Your task to perform on an android device: toggle improve location accuracy Image 0: 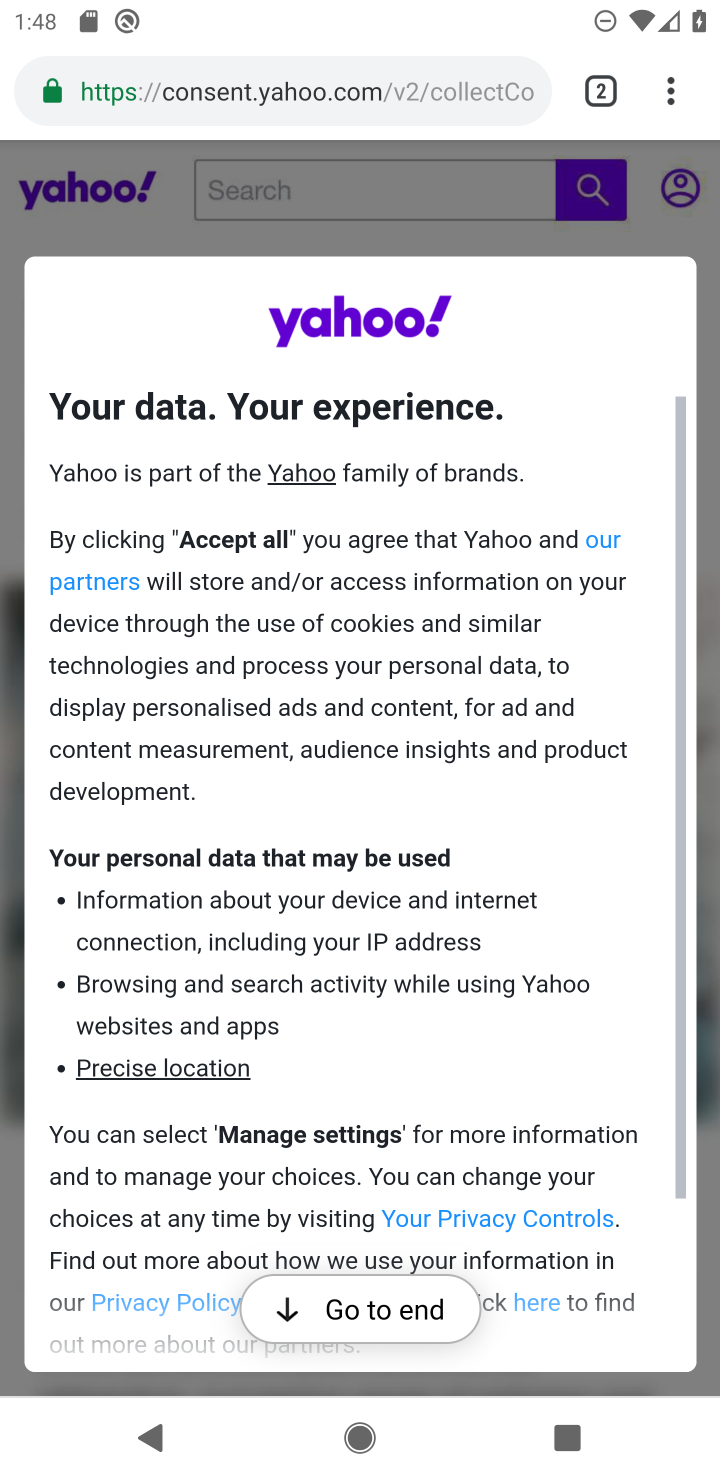
Step 0: press home button
Your task to perform on an android device: toggle improve location accuracy Image 1: 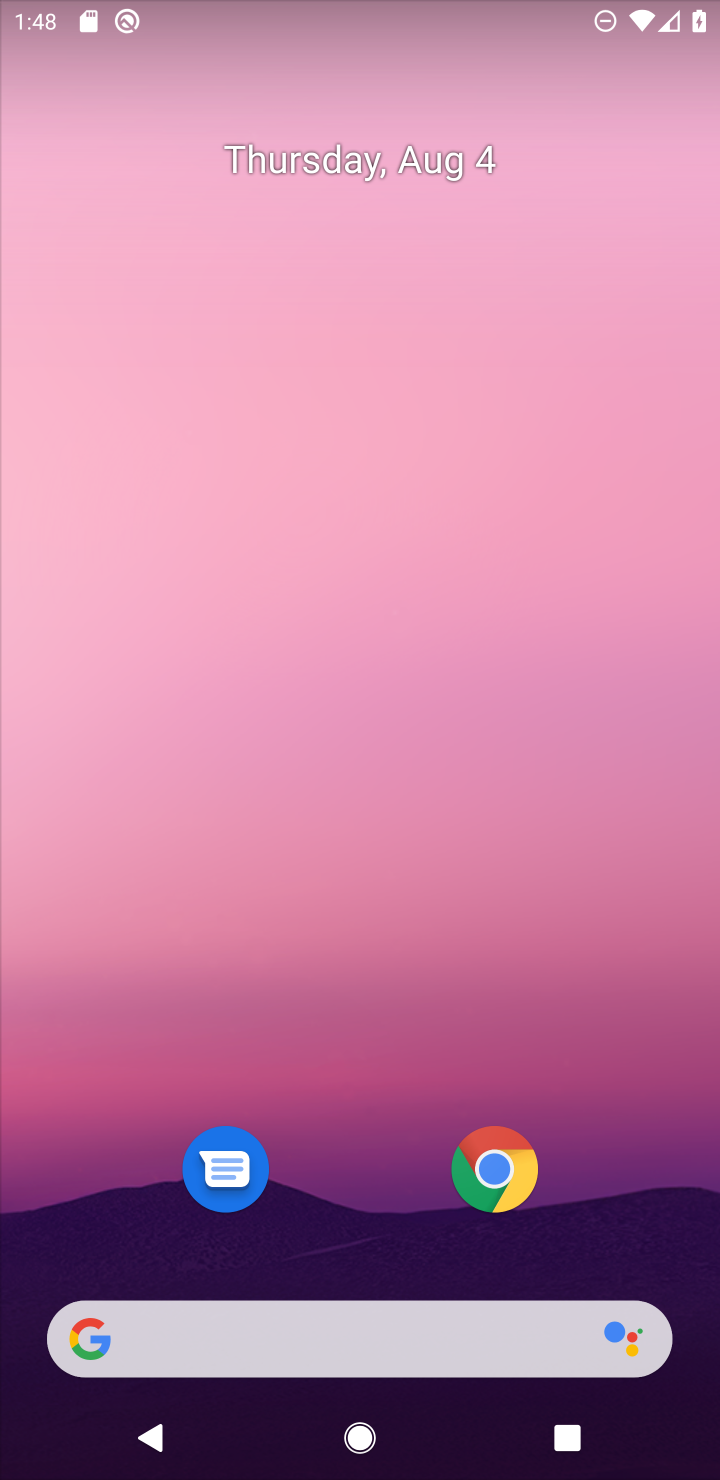
Step 1: drag from (382, 1235) to (484, 30)
Your task to perform on an android device: toggle improve location accuracy Image 2: 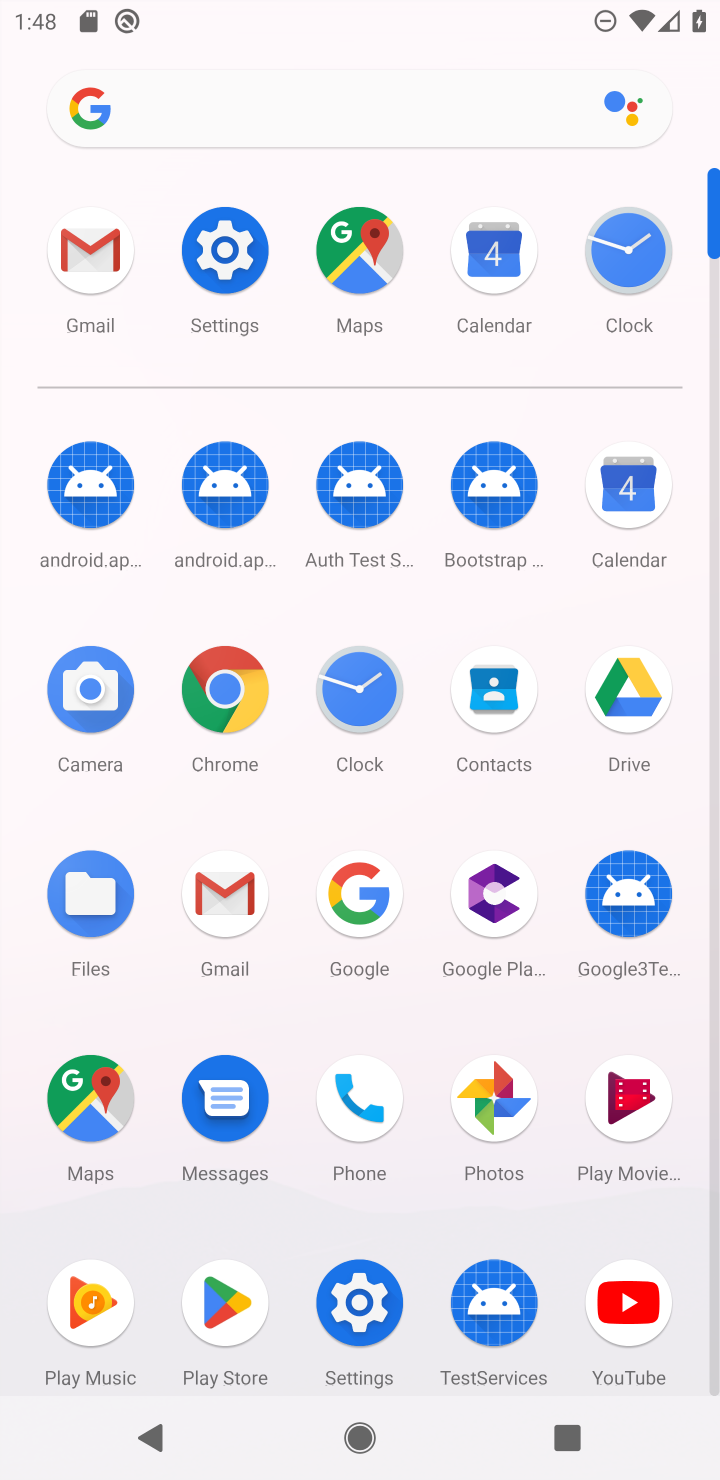
Step 2: click (218, 248)
Your task to perform on an android device: toggle improve location accuracy Image 3: 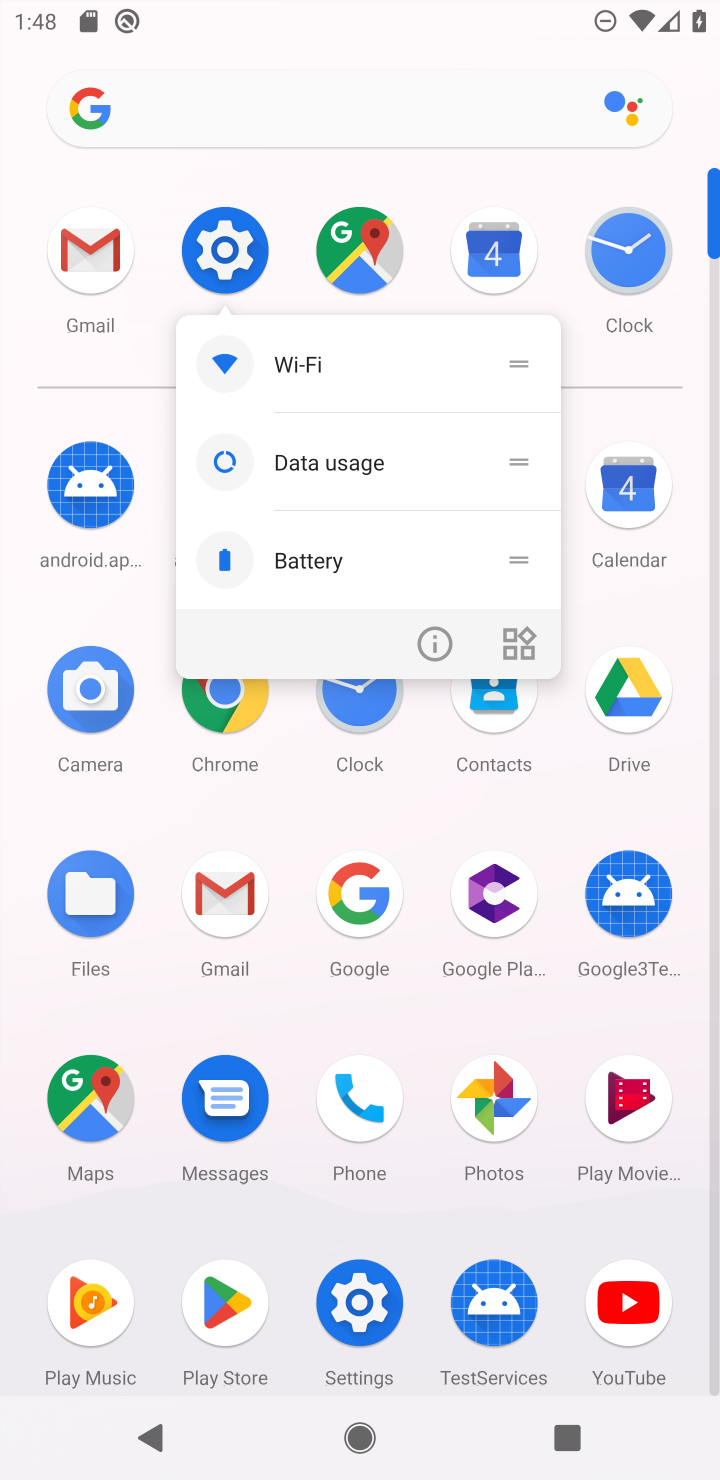
Step 3: click (224, 255)
Your task to perform on an android device: toggle improve location accuracy Image 4: 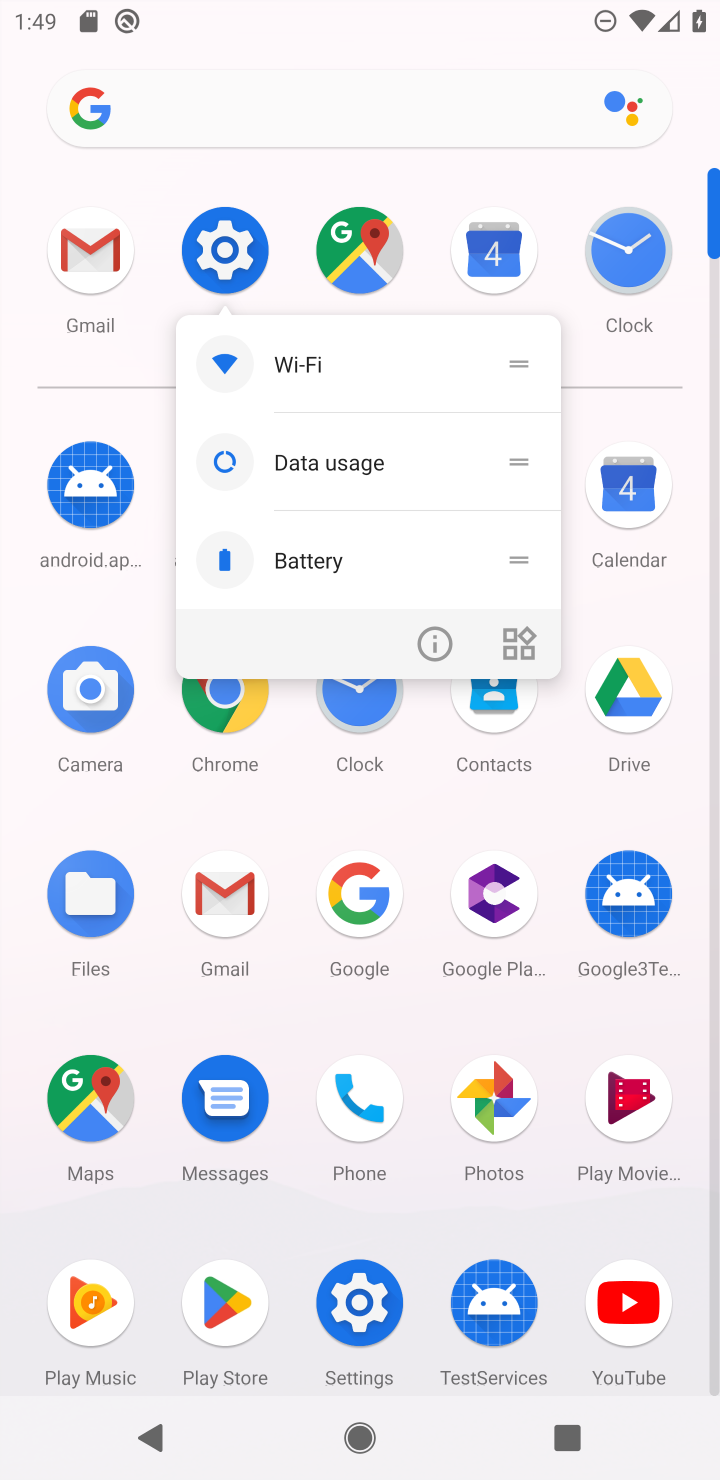
Step 4: click (224, 255)
Your task to perform on an android device: toggle improve location accuracy Image 5: 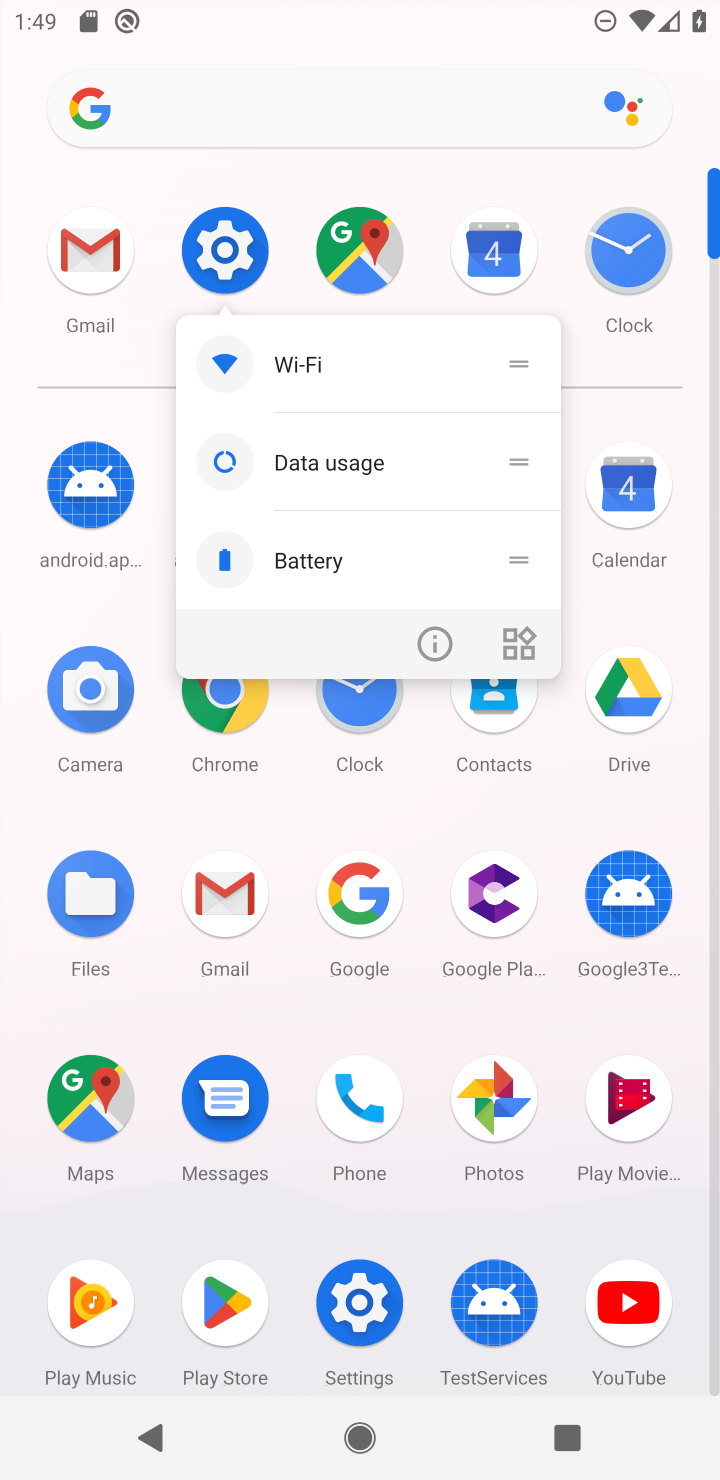
Step 5: click (224, 255)
Your task to perform on an android device: toggle improve location accuracy Image 6: 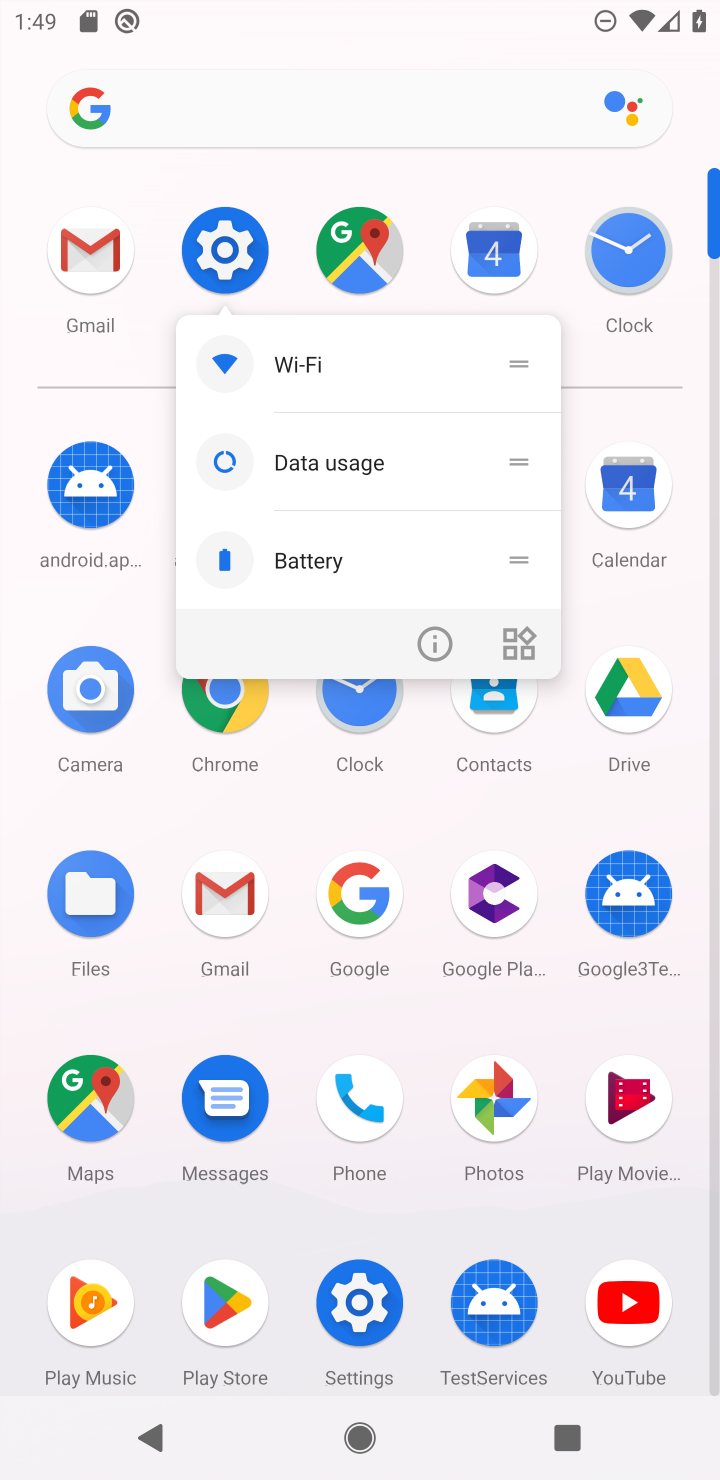
Step 6: click (229, 248)
Your task to perform on an android device: toggle improve location accuracy Image 7: 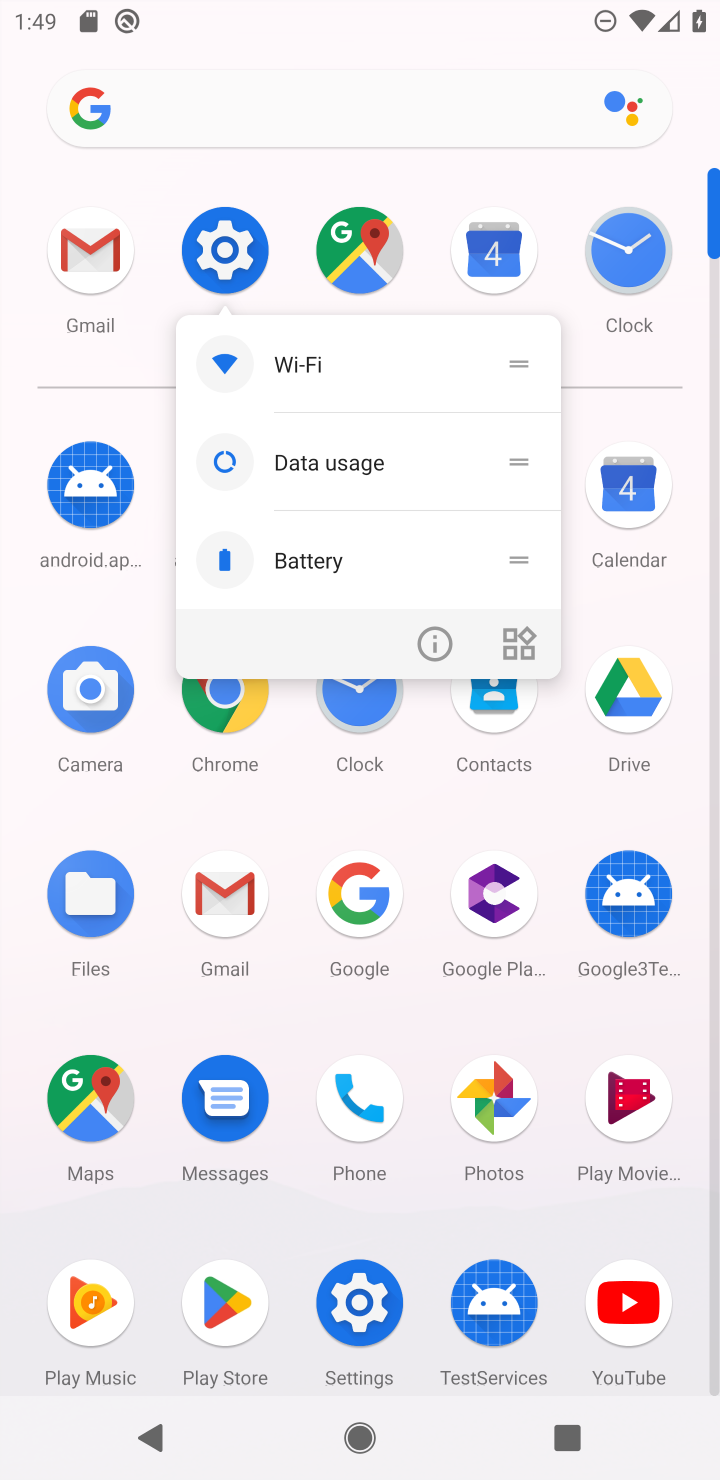
Step 7: click (229, 248)
Your task to perform on an android device: toggle improve location accuracy Image 8: 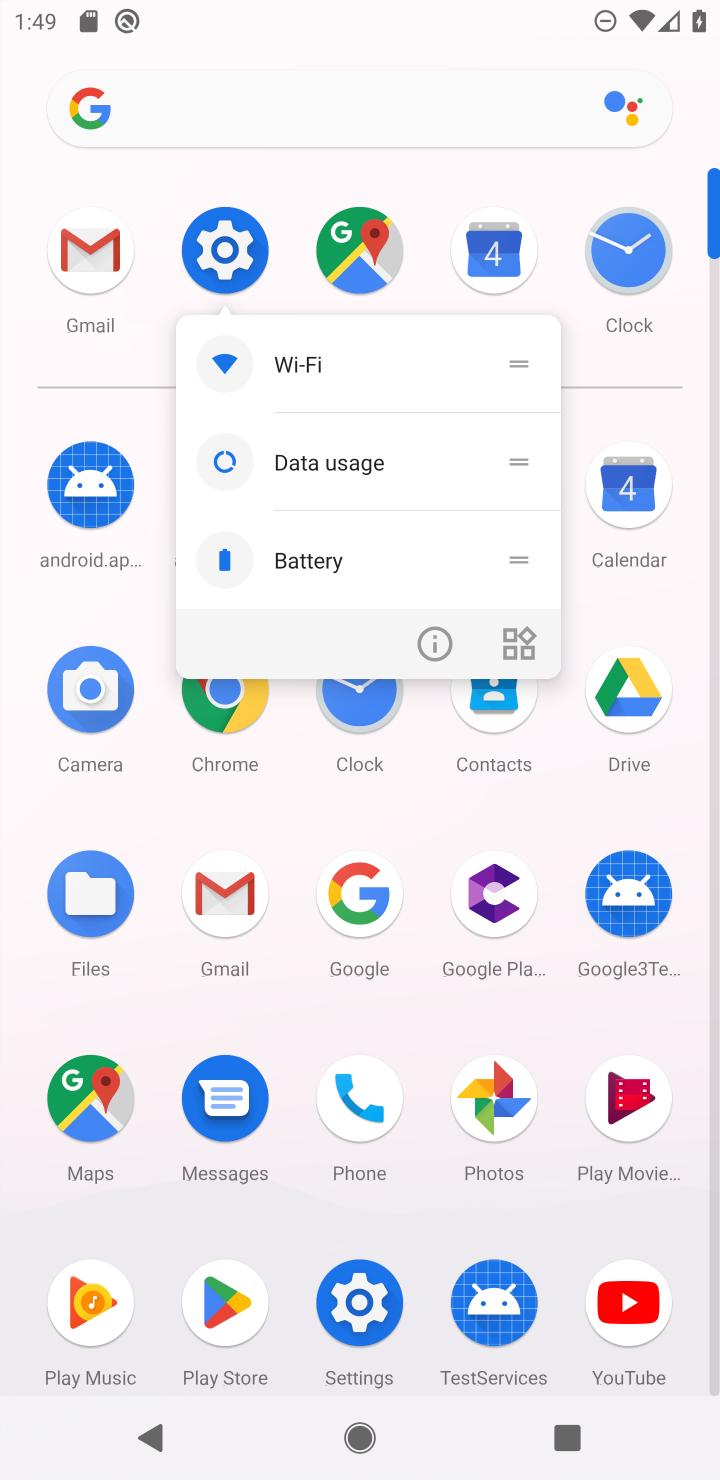
Step 8: click (229, 248)
Your task to perform on an android device: toggle improve location accuracy Image 9: 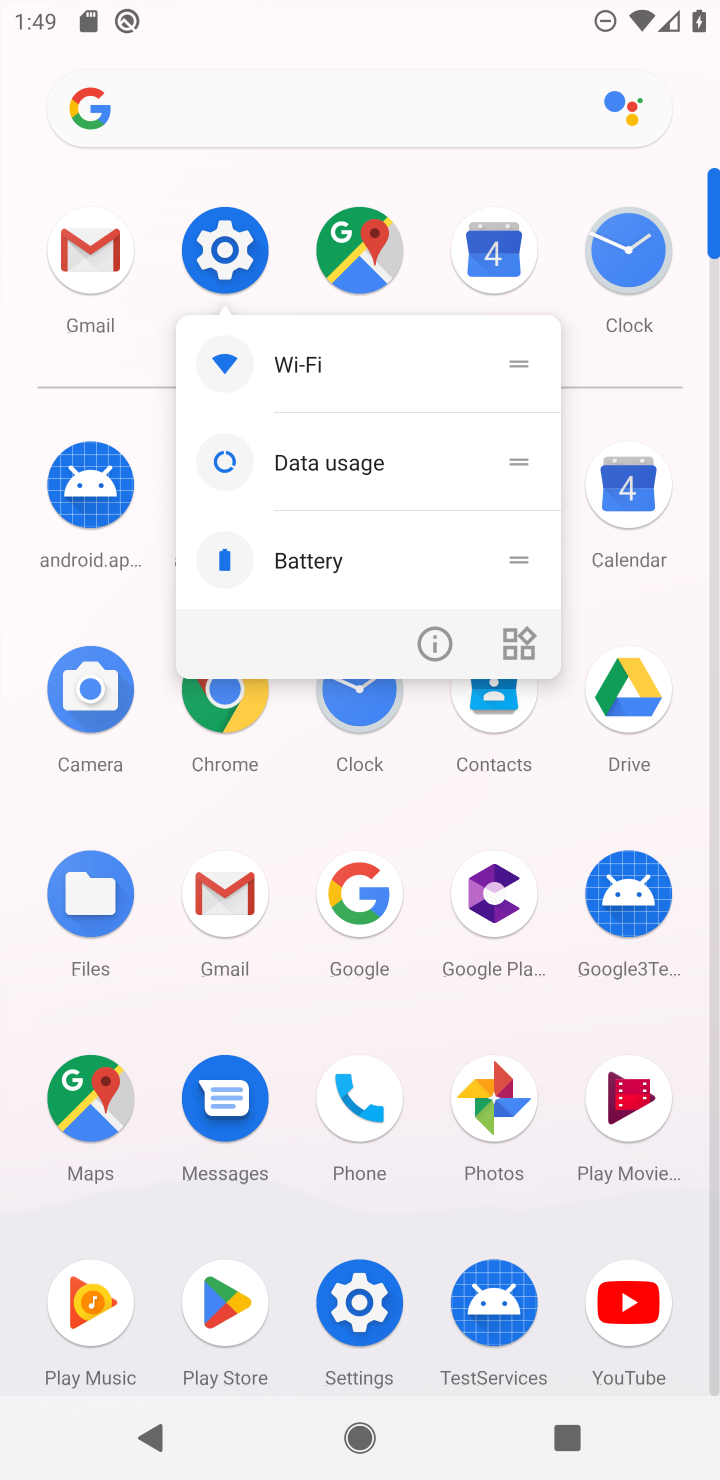
Step 9: click (231, 255)
Your task to perform on an android device: toggle improve location accuracy Image 10: 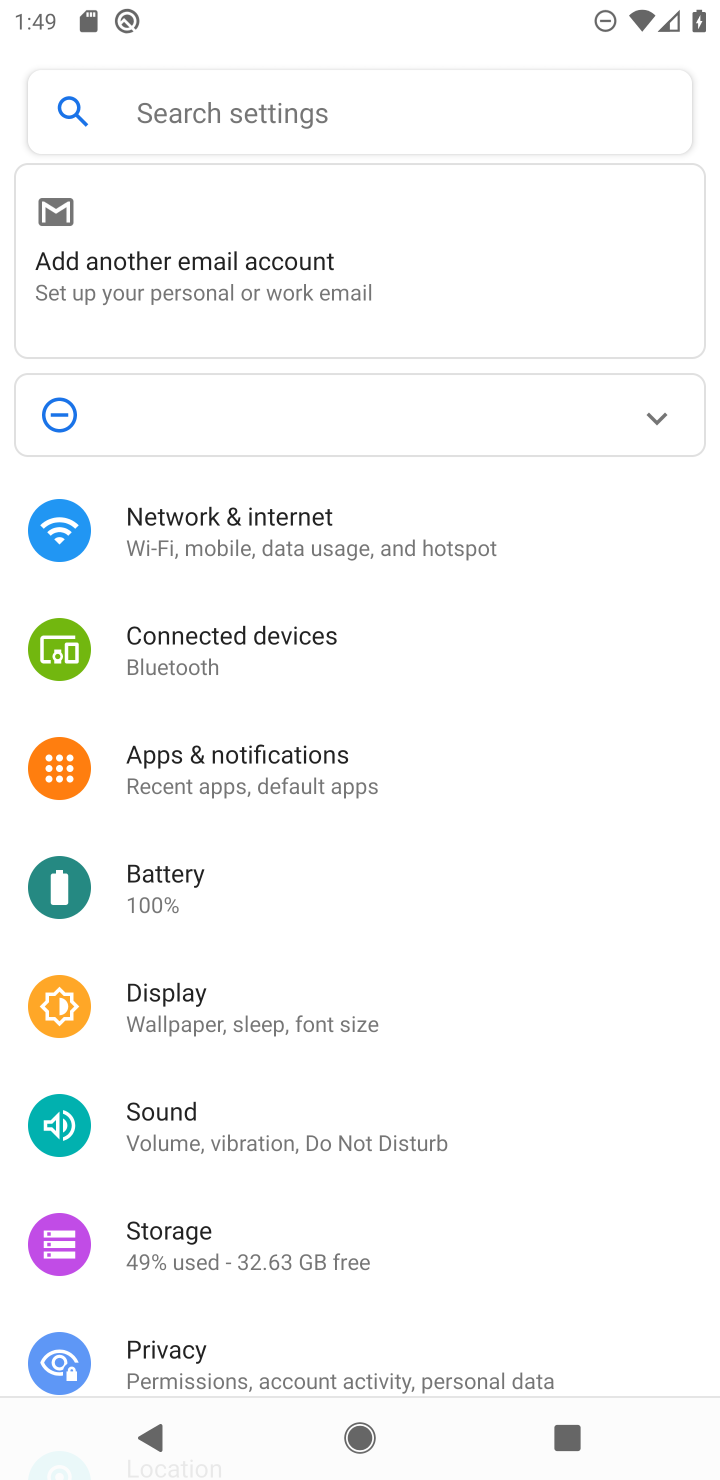
Step 10: drag from (564, 1192) to (584, 697)
Your task to perform on an android device: toggle improve location accuracy Image 11: 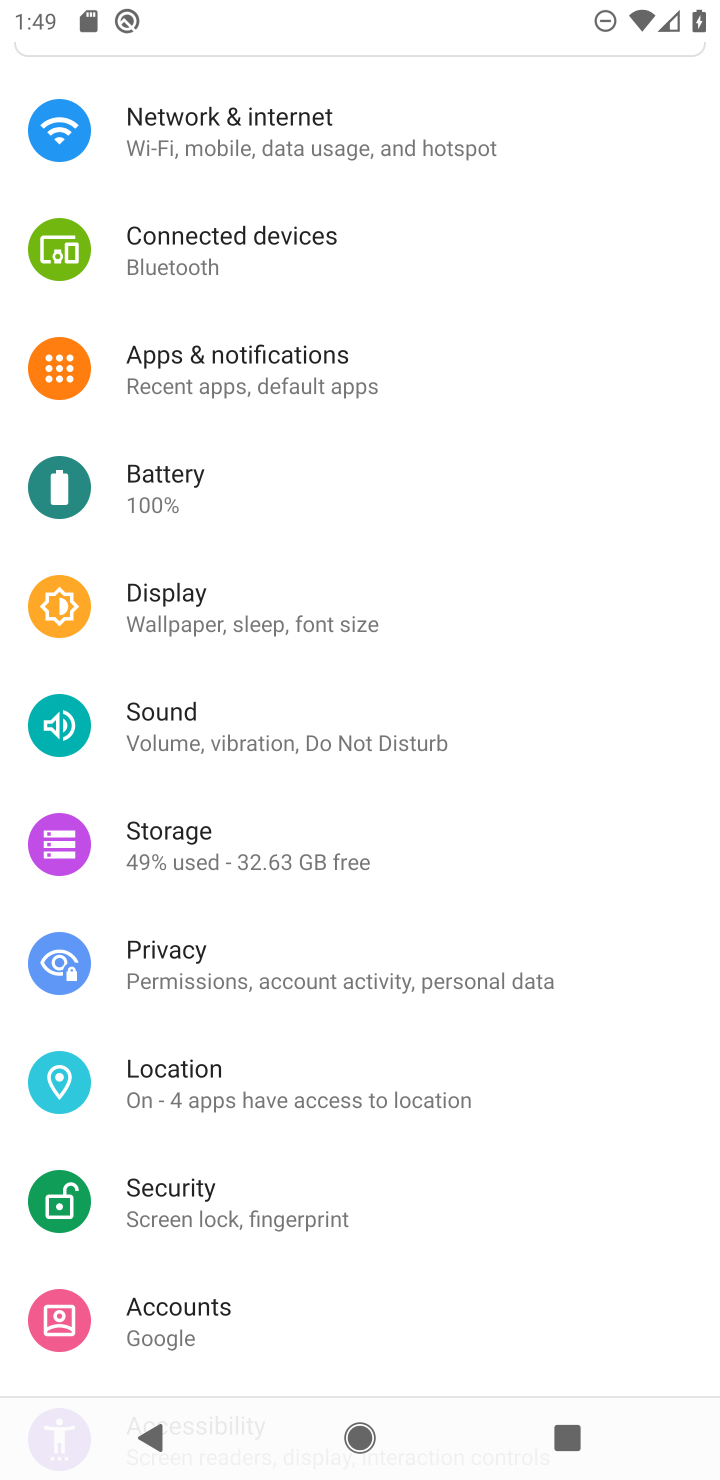
Step 11: click (178, 1084)
Your task to perform on an android device: toggle improve location accuracy Image 12: 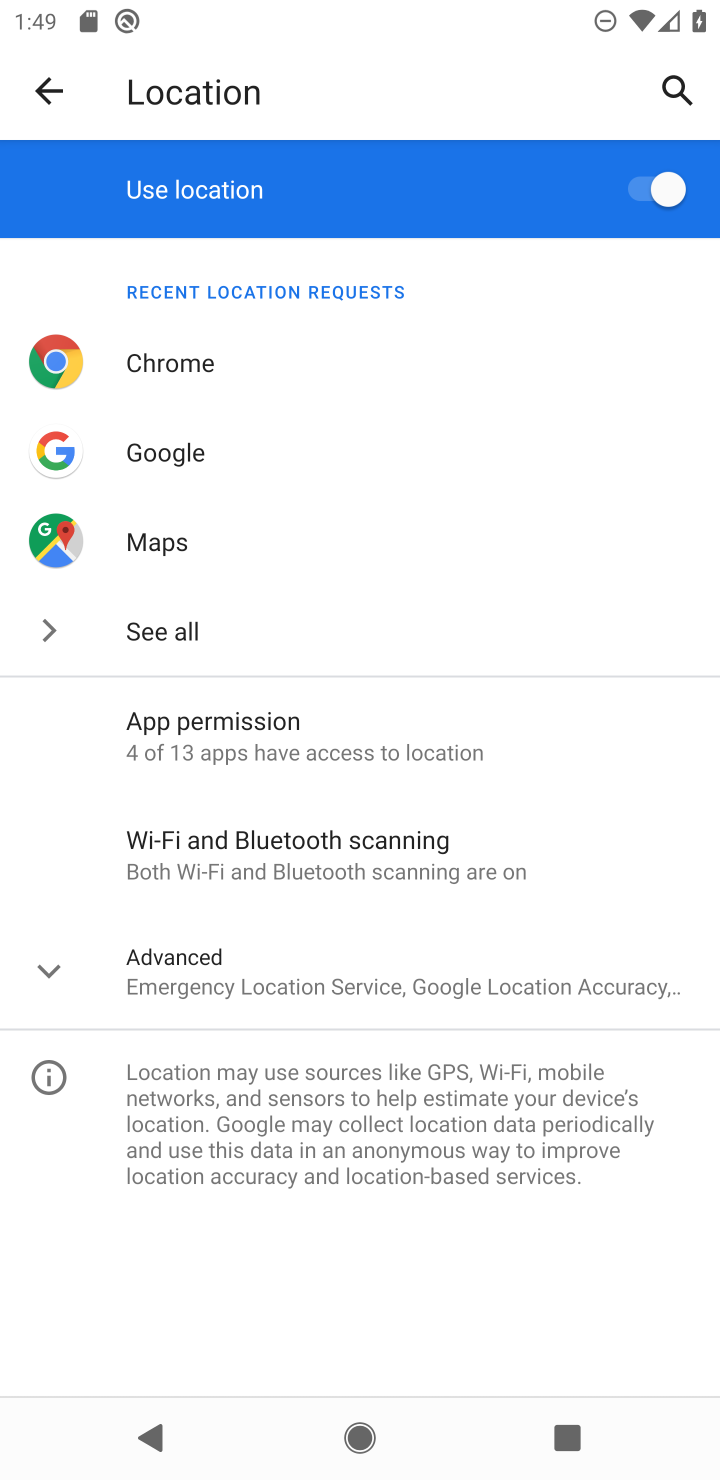
Step 12: click (42, 981)
Your task to perform on an android device: toggle improve location accuracy Image 13: 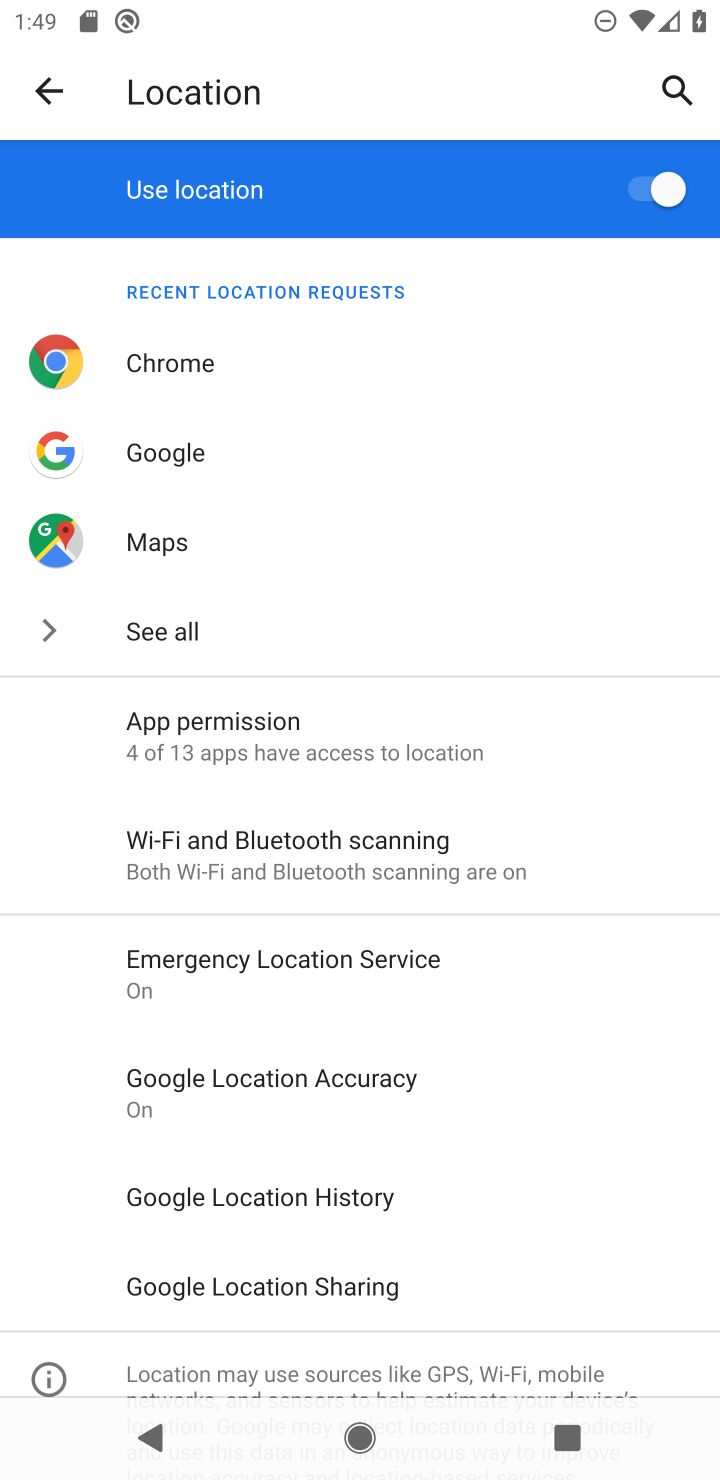
Step 13: click (293, 1088)
Your task to perform on an android device: toggle improve location accuracy Image 14: 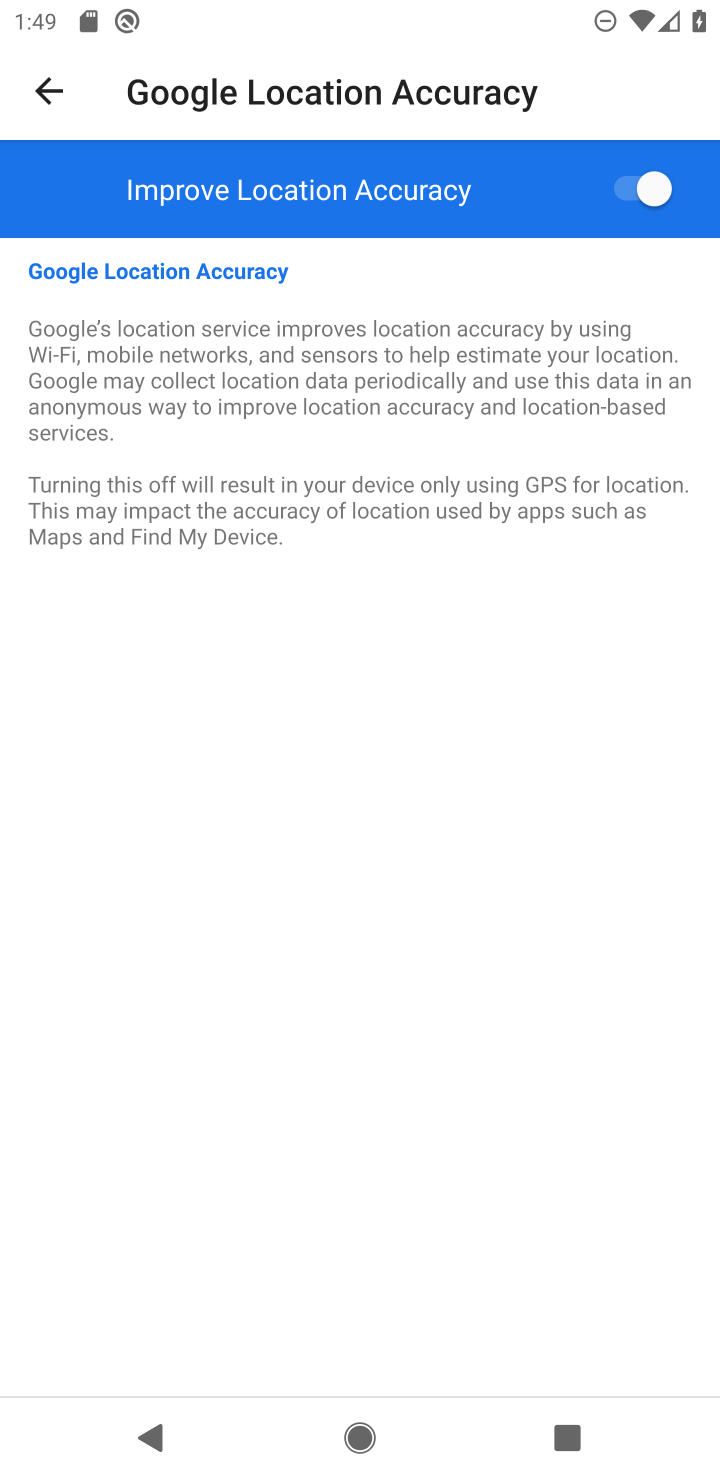
Step 14: click (638, 191)
Your task to perform on an android device: toggle improve location accuracy Image 15: 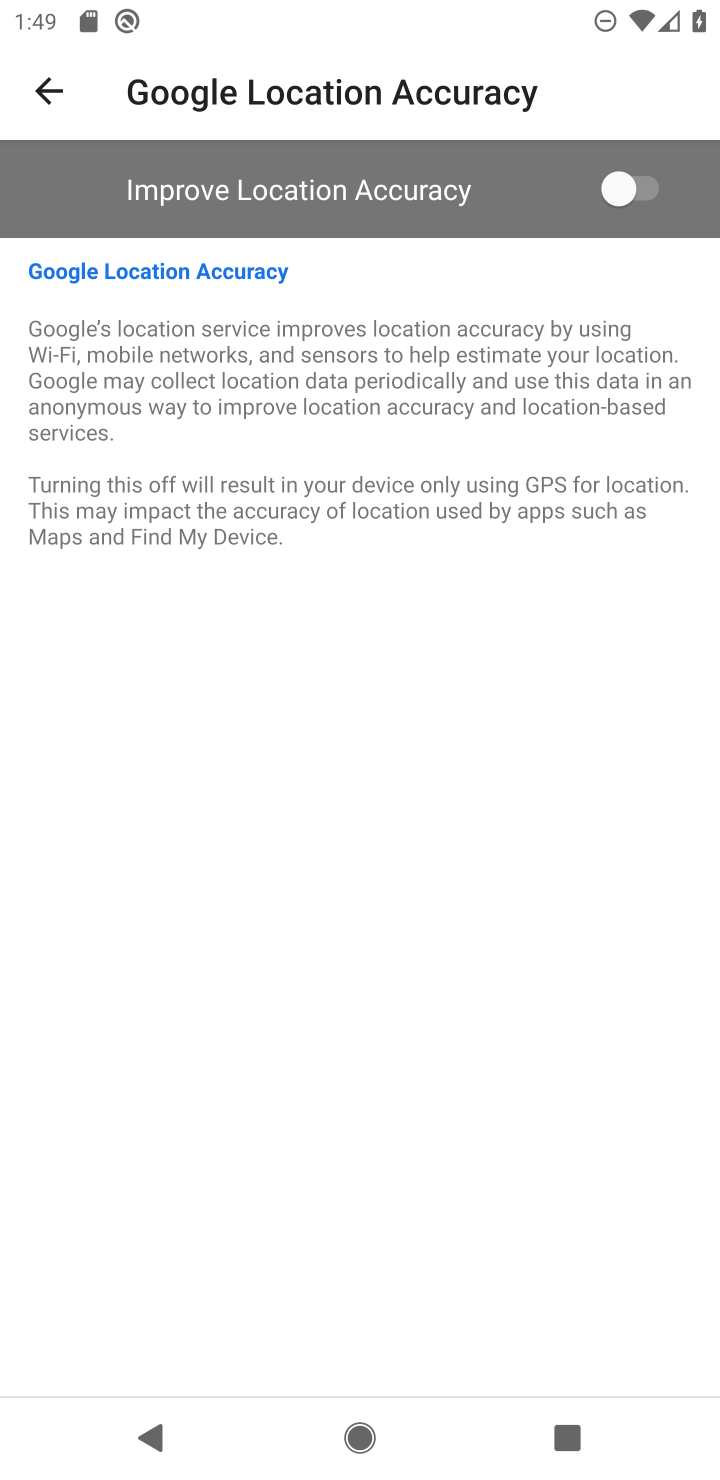
Step 15: task complete